Your task to perform on an android device: What's the weather going to be this weekend? Image 0: 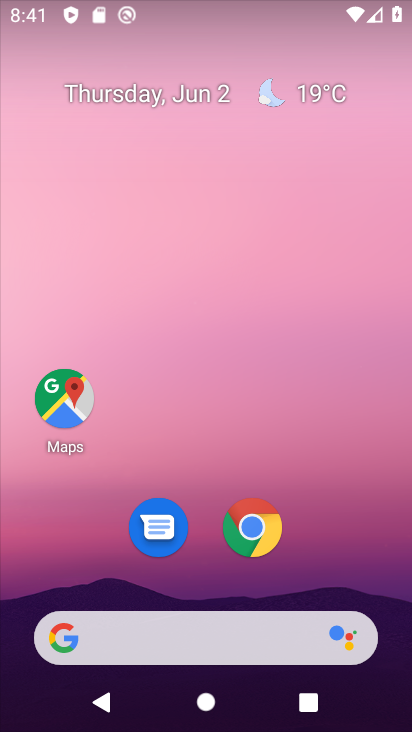
Step 0: drag from (361, 584) to (315, 199)
Your task to perform on an android device: What's the weather going to be this weekend? Image 1: 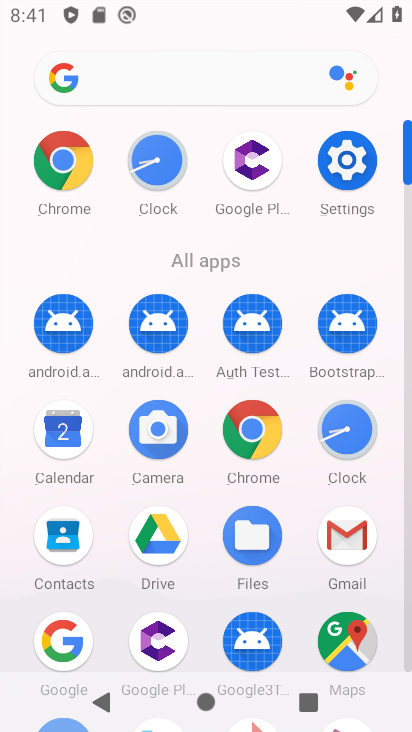
Step 1: click (251, 436)
Your task to perform on an android device: What's the weather going to be this weekend? Image 2: 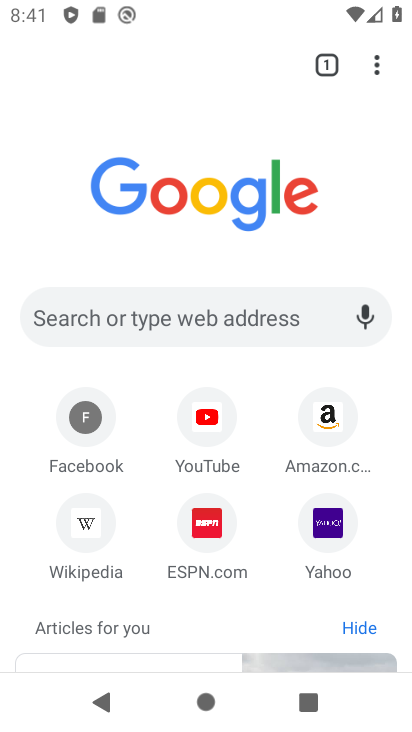
Step 2: click (248, 316)
Your task to perform on an android device: What's the weather going to be this weekend? Image 3: 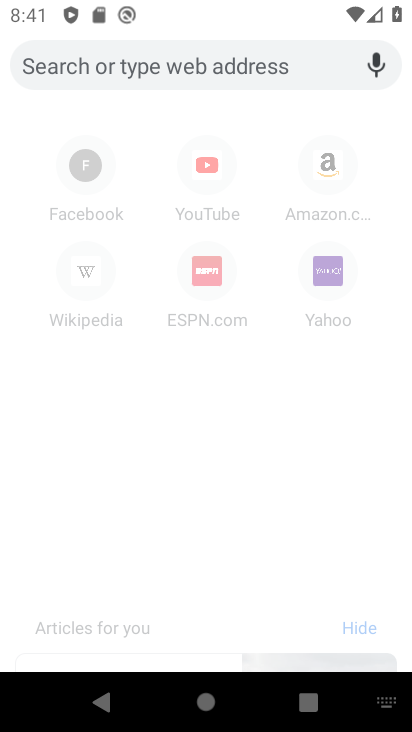
Step 3: type "What's the weather going to be this weekend?"
Your task to perform on an android device: What's the weather going to be this weekend? Image 4: 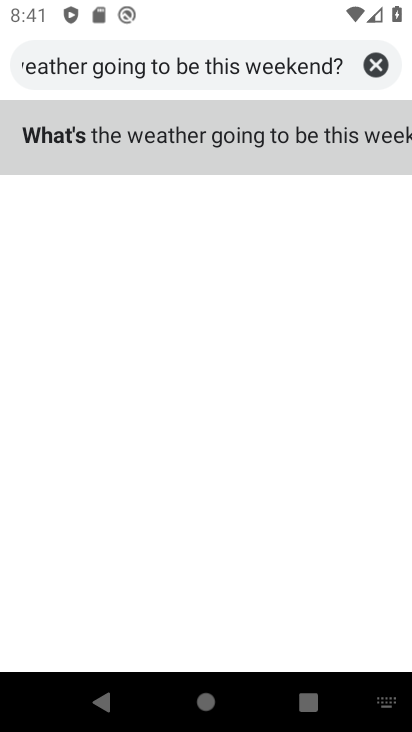
Step 4: click (300, 133)
Your task to perform on an android device: What's the weather going to be this weekend? Image 5: 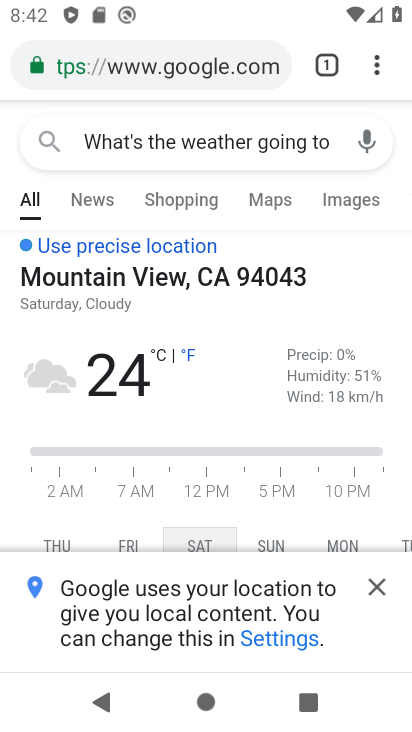
Step 5: click (379, 592)
Your task to perform on an android device: What's the weather going to be this weekend? Image 6: 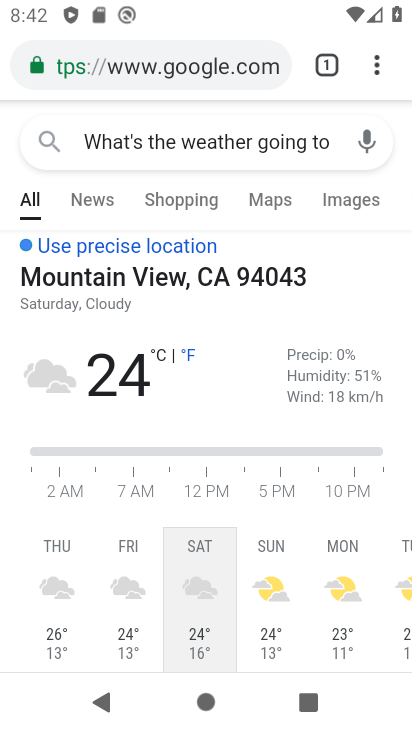
Step 6: task complete